Your task to perform on an android device: What's on my calendar today? Image 0: 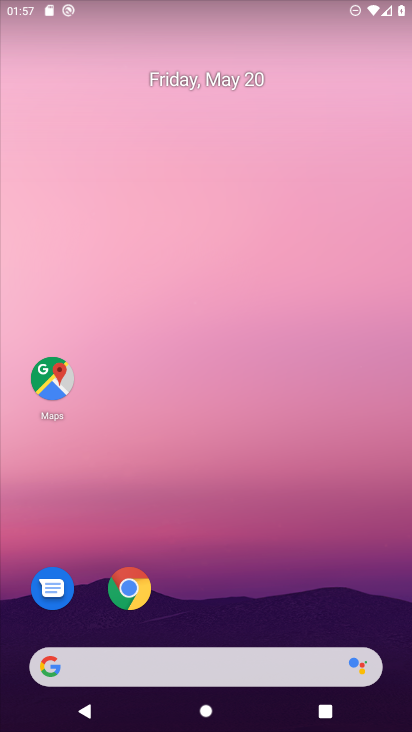
Step 0: drag from (377, 619) to (350, 59)
Your task to perform on an android device: What's on my calendar today? Image 1: 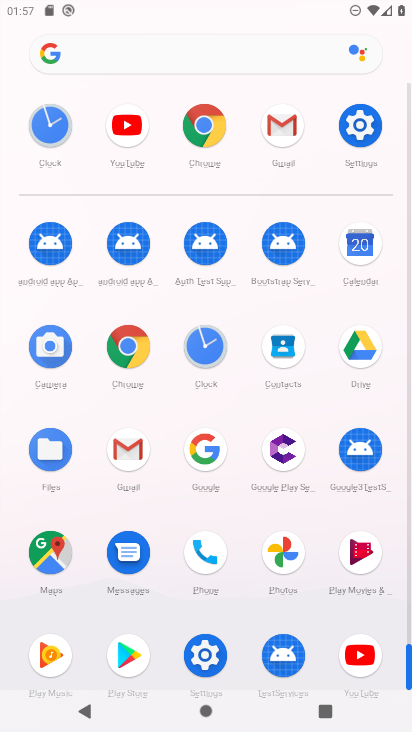
Step 1: click (357, 243)
Your task to perform on an android device: What's on my calendar today? Image 2: 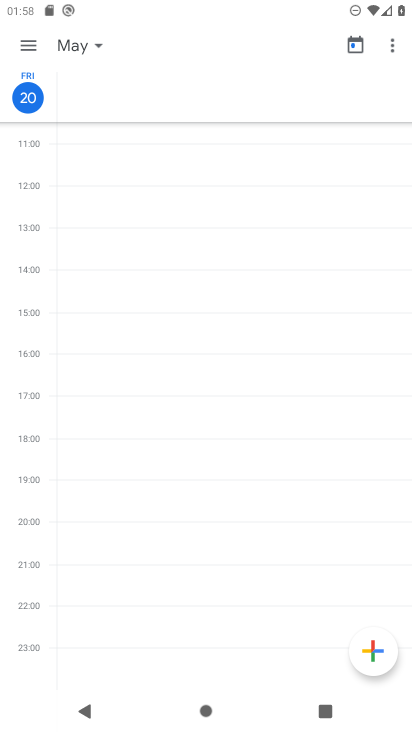
Step 2: click (29, 42)
Your task to perform on an android device: What's on my calendar today? Image 3: 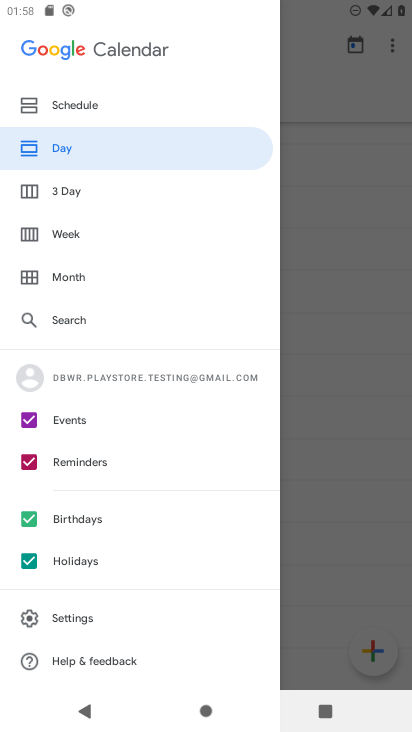
Step 3: click (62, 148)
Your task to perform on an android device: What's on my calendar today? Image 4: 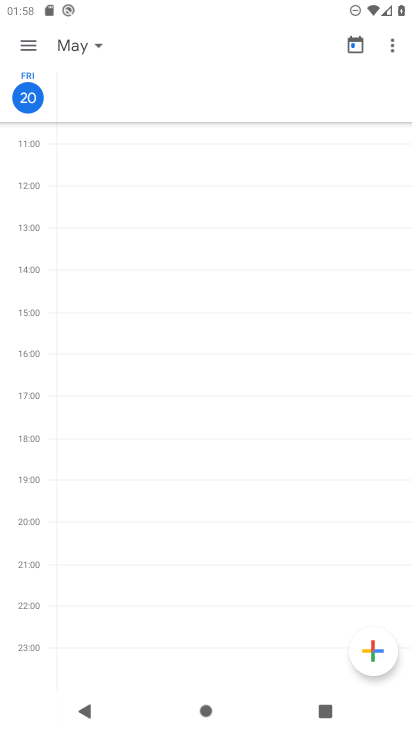
Step 4: task complete